Your task to perform on an android device: turn off javascript in the chrome app Image 0: 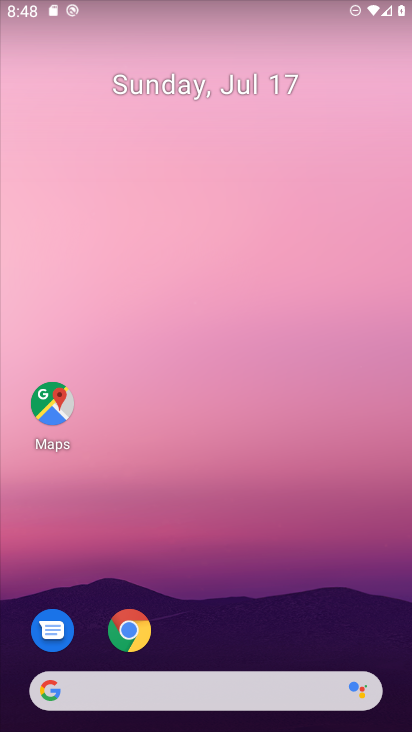
Step 0: drag from (299, 681) to (302, 50)
Your task to perform on an android device: turn off javascript in the chrome app Image 1: 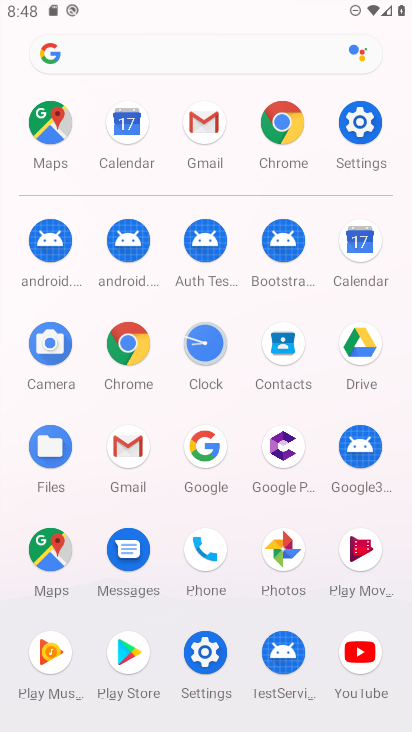
Step 1: click (296, 115)
Your task to perform on an android device: turn off javascript in the chrome app Image 2: 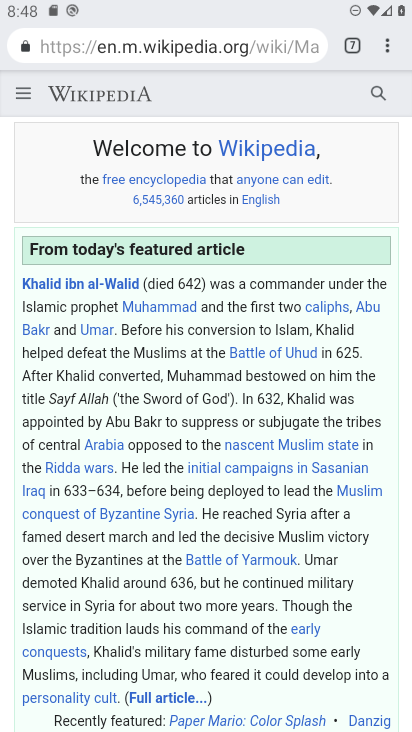
Step 2: click (397, 37)
Your task to perform on an android device: turn off javascript in the chrome app Image 3: 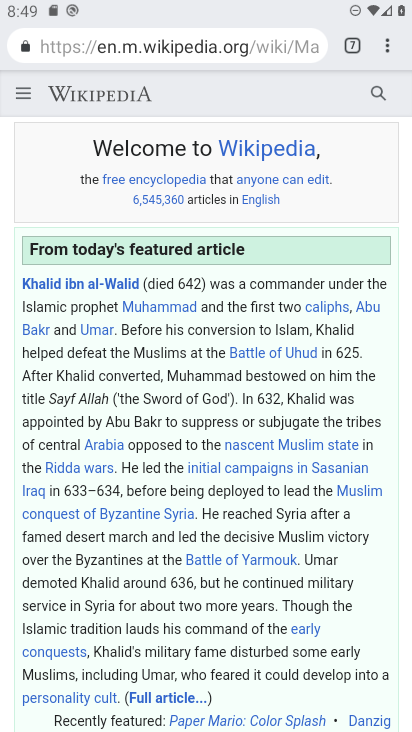
Step 3: click (387, 45)
Your task to perform on an android device: turn off javascript in the chrome app Image 4: 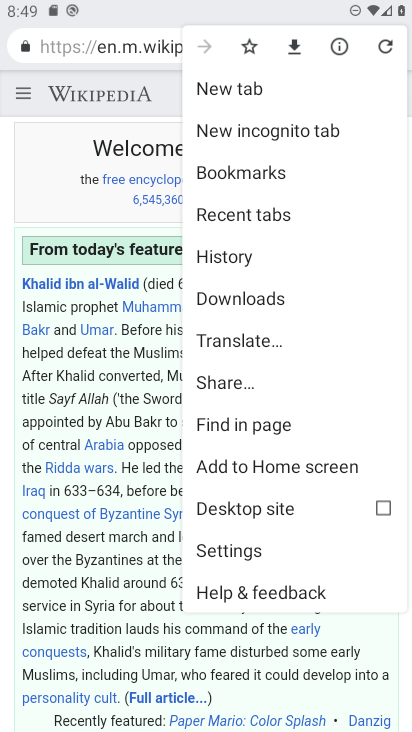
Step 4: click (248, 553)
Your task to perform on an android device: turn off javascript in the chrome app Image 5: 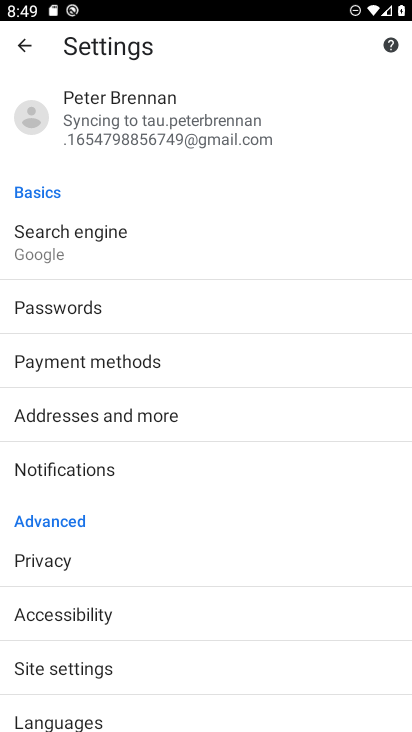
Step 5: drag from (211, 646) to (288, 181)
Your task to perform on an android device: turn off javascript in the chrome app Image 6: 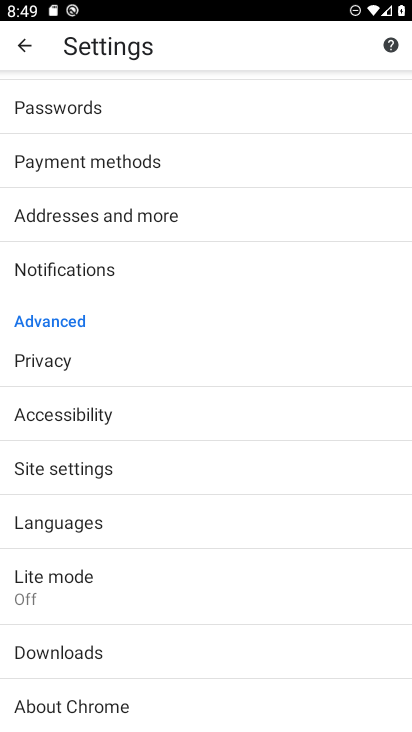
Step 6: click (133, 472)
Your task to perform on an android device: turn off javascript in the chrome app Image 7: 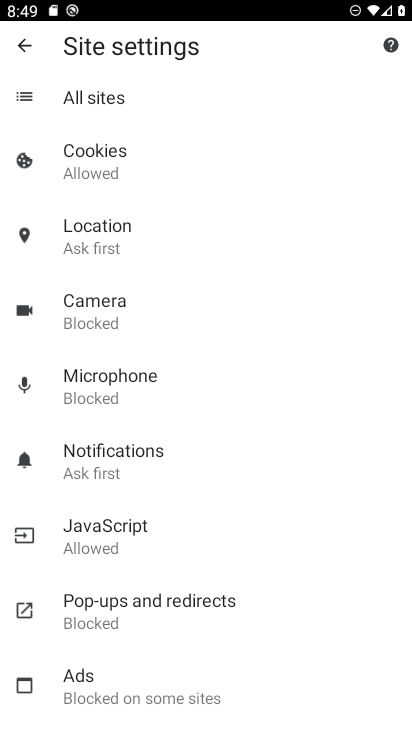
Step 7: click (141, 517)
Your task to perform on an android device: turn off javascript in the chrome app Image 8: 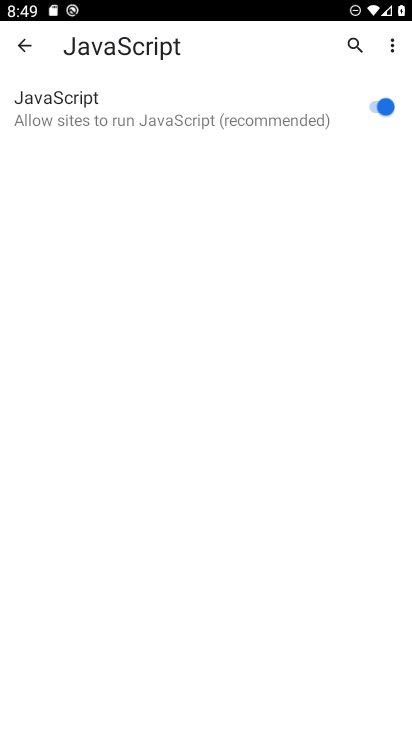
Step 8: click (376, 98)
Your task to perform on an android device: turn off javascript in the chrome app Image 9: 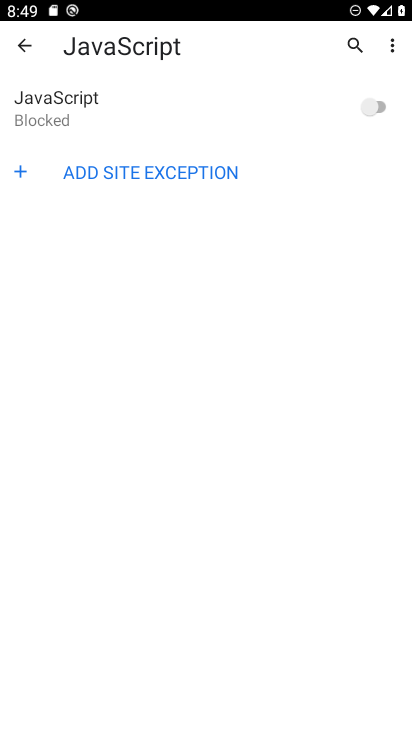
Step 9: task complete